Your task to perform on an android device: turn smart compose on in the gmail app Image 0: 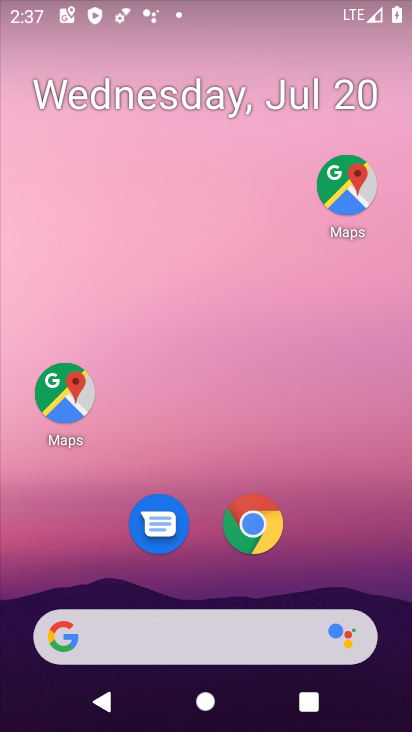
Step 0: drag from (317, 551) to (273, 71)
Your task to perform on an android device: turn smart compose on in the gmail app Image 1: 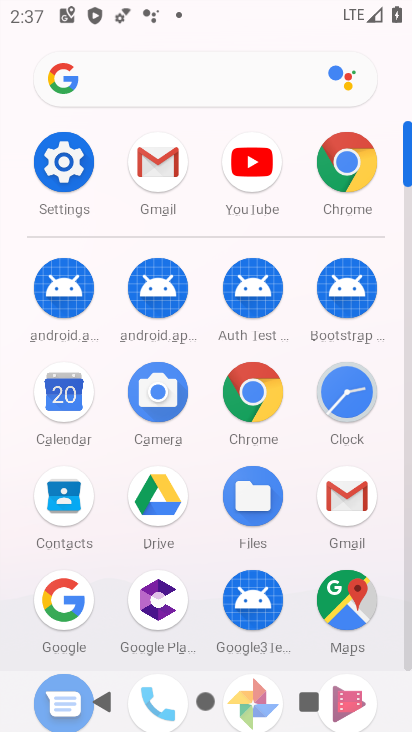
Step 1: click (162, 170)
Your task to perform on an android device: turn smart compose on in the gmail app Image 2: 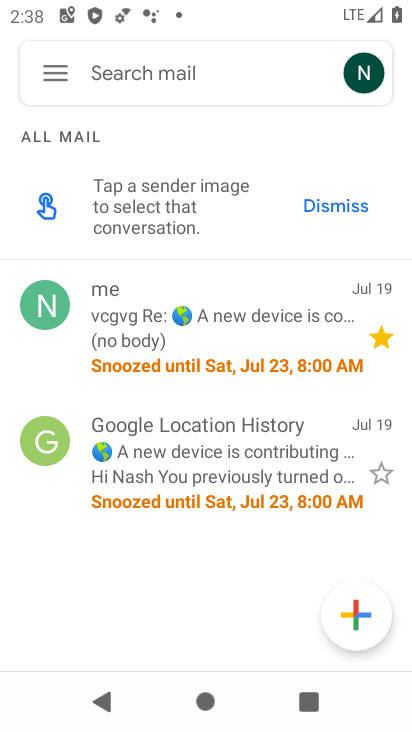
Step 2: click (64, 72)
Your task to perform on an android device: turn smart compose on in the gmail app Image 3: 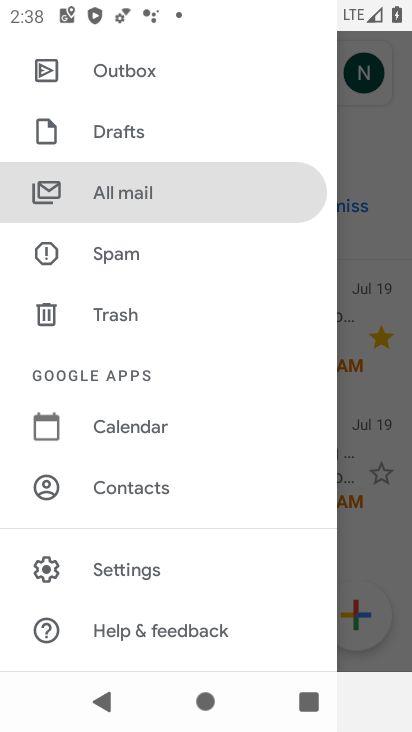
Step 3: click (151, 561)
Your task to perform on an android device: turn smart compose on in the gmail app Image 4: 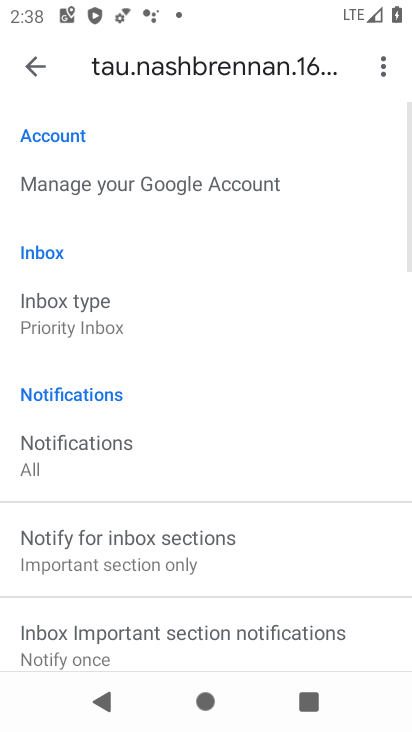
Step 4: task complete